Your task to perform on an android device: open a bookmark in the chrome app Image 0: 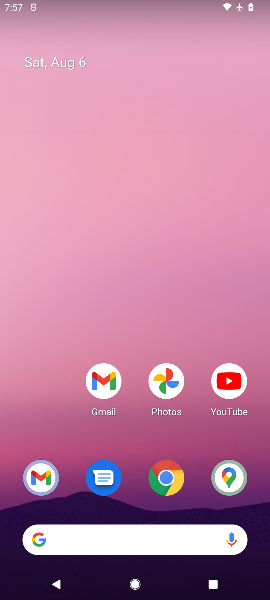
Step 0: press home button
Your task to perform on an android device: open a bookmark in the chrome app Image 1: 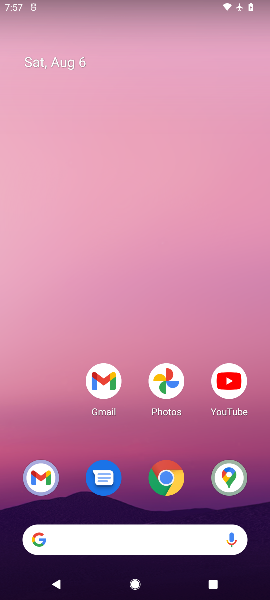
Step 1: click (161, 475)
Your task to perform on an android device: open a bookmark in the chrome app Image 2: 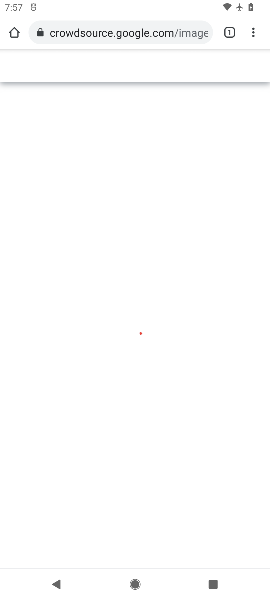
Step 2: click (253, 28)
Your task to perform on an android device: open a bookmark in the chrome app Image 3: 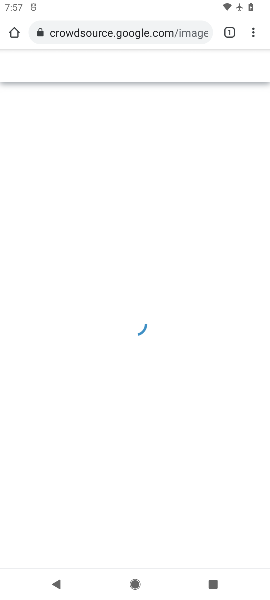
Step 3: task complete